Your task to perform on an android device: Open CNN.com Image 0: 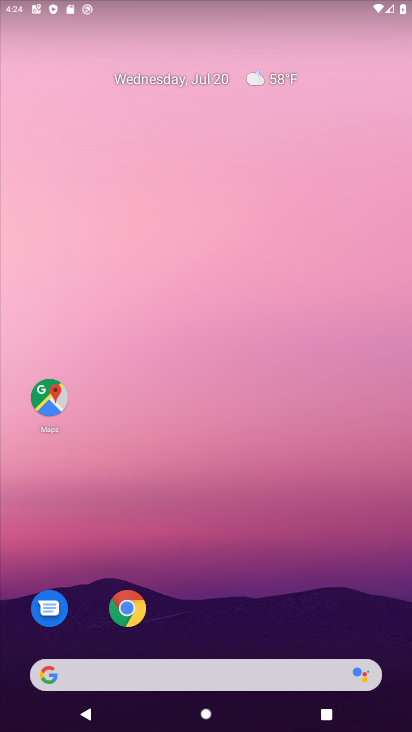
Step 0: click (139, 599)
Your task to perform on an android device: Open CNN.com Image 1: 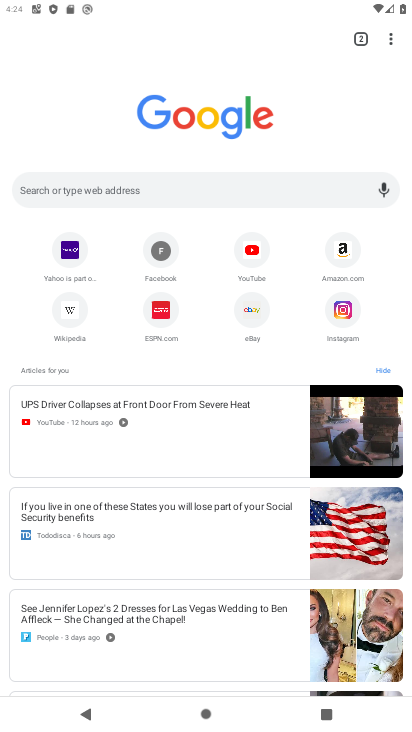
Step 1: click (239, 202)
Your task to perform on an android device: Open CNN.com Image 2: 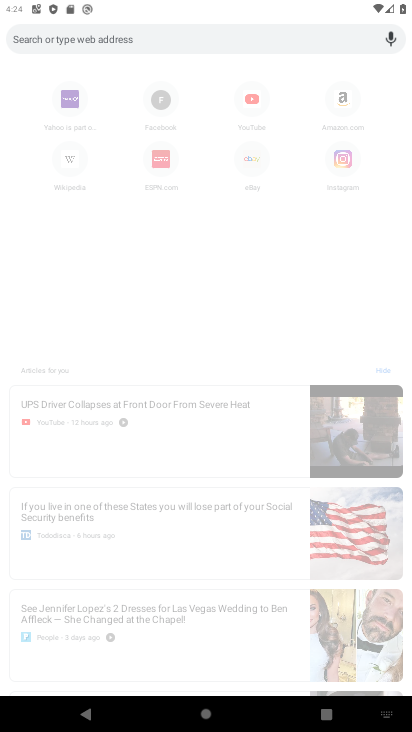
Step 2: type "cnn"
Your task to perform on an android device: Open CNN.com Image 3: 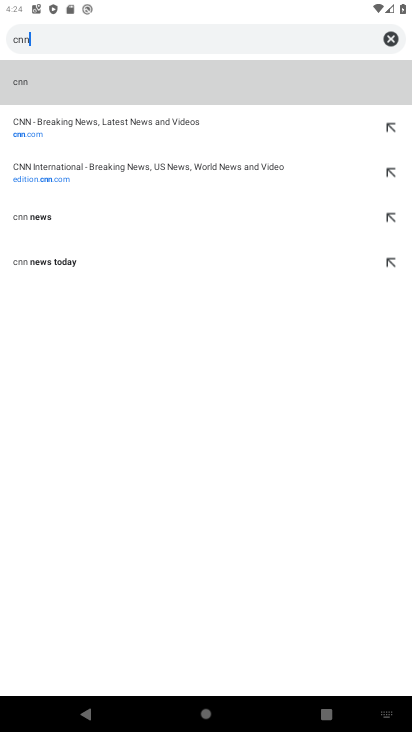
Step 3: click (48, 116)
Your task to perform on an android device: Open CNN.com Image 4: 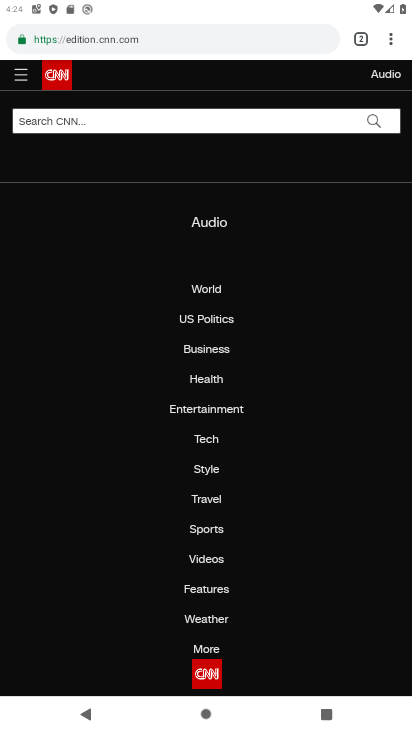
Step 4: task complete